Your task to perform on an android device: Do I have any events today? Image 0: 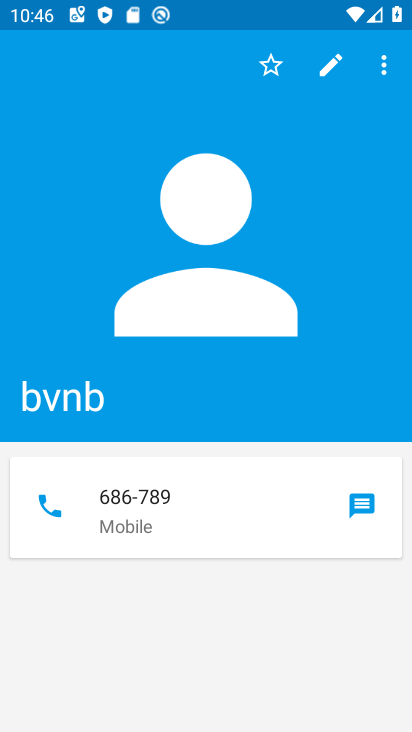
Step 0: press home button
Your task to perform on an android device: Do I have any events today? Image 1: 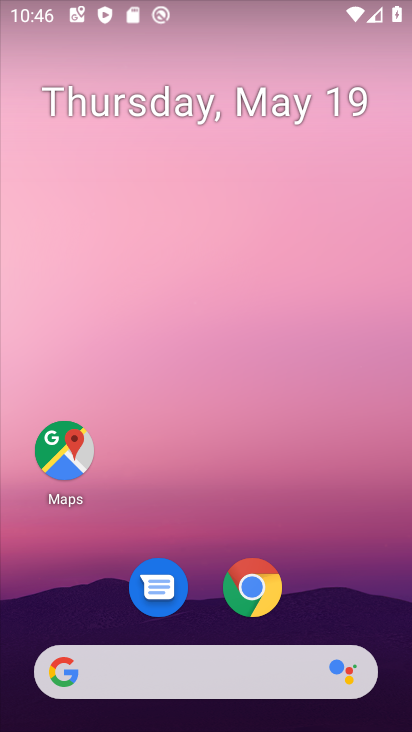
Step 1: drag from (187, 677) to (189, 6)
Your task to perform on an android device: Do I have any events today? Image 2: 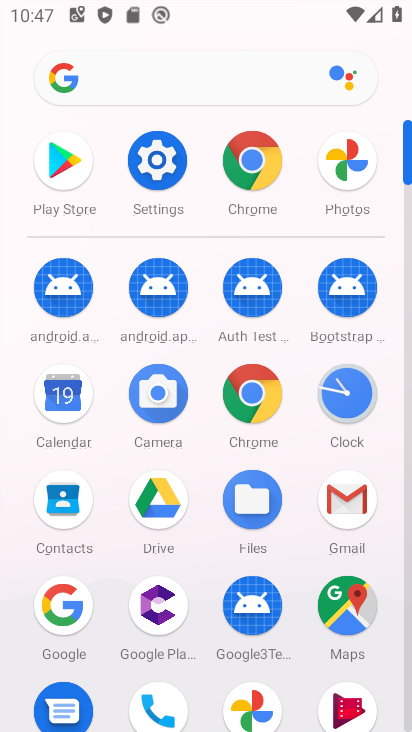
Step 2: click (60, 393)
Your task to perform on an android device: Do I have any events today? Image 3: 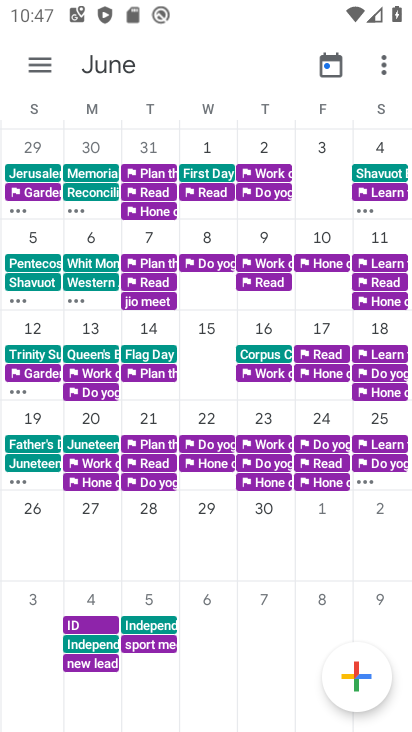
Step 3: click (35, 71)
Your task to perform on an android device: Do I have any events today? Image 4: 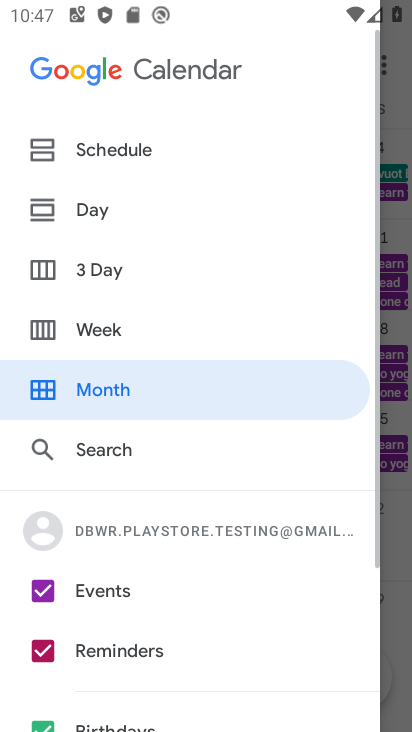
Step 4: click (123, 144)
Your task to perform on an android device: Do I have any events today? Image 5: 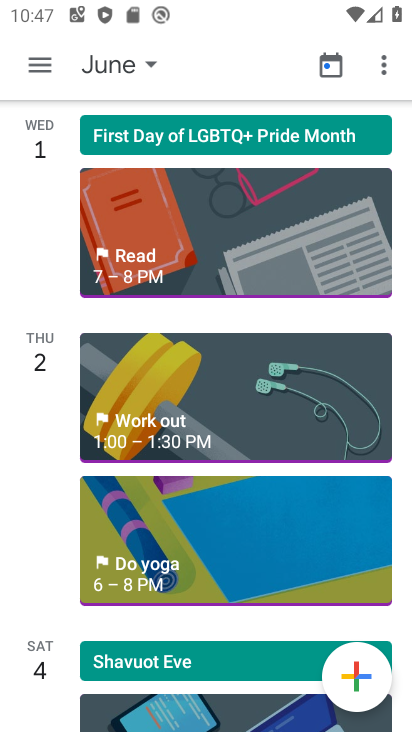
Step 5: task complete